Your task to perform on an android device: Go to CNN.com Image 0: 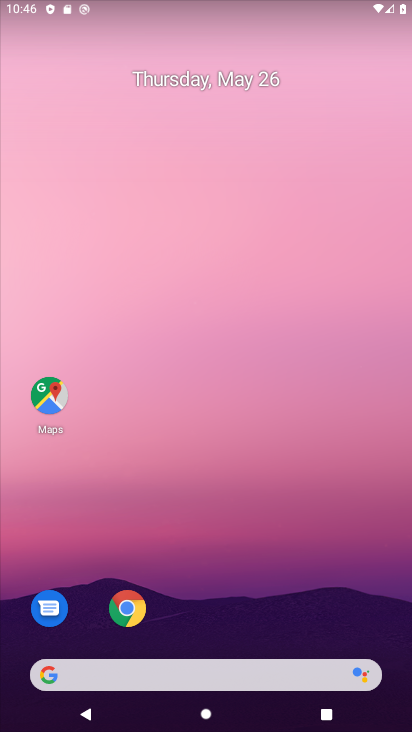
Step 0: drag from (309, 454) to (327, 86)
Your task to perform on an android device: Go to CNN.com Image 1: 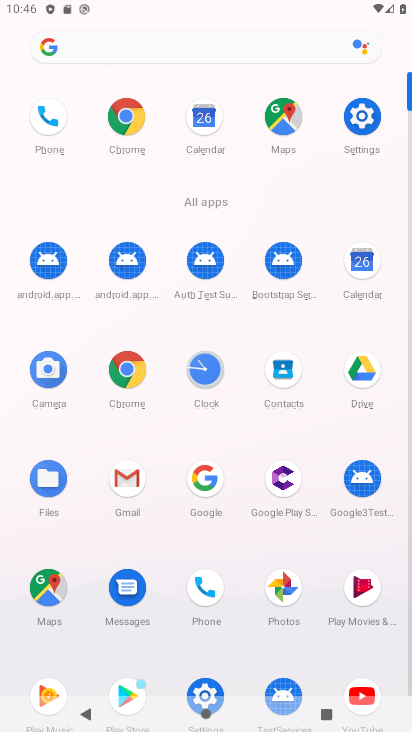
Step 1: click (130, 115)
Your task to perform on an android device: Go to CNN.com Image 2: 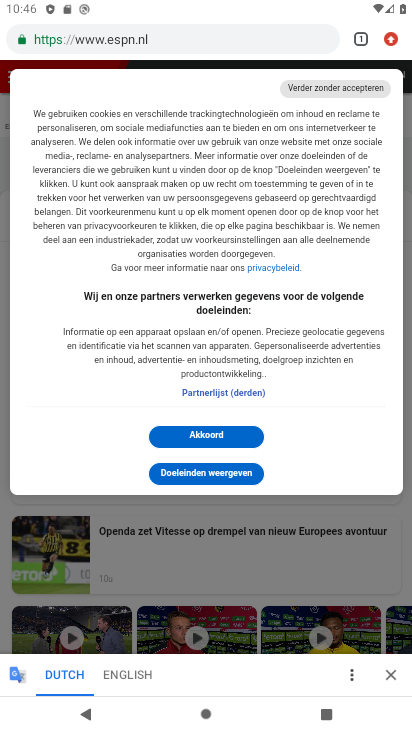
Step 2: click (201, 34)
Your task to perform on an android device: Go to CNN.com Image 3: 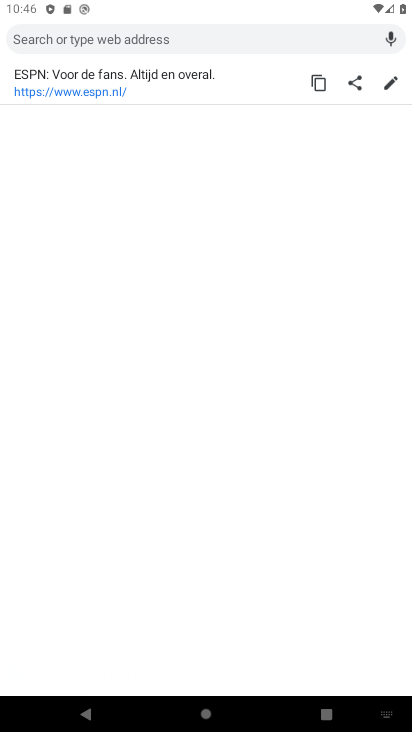
Step 3: type "cnn.com"
Your task to perform on an android device: Go to CNN.com Image 4: 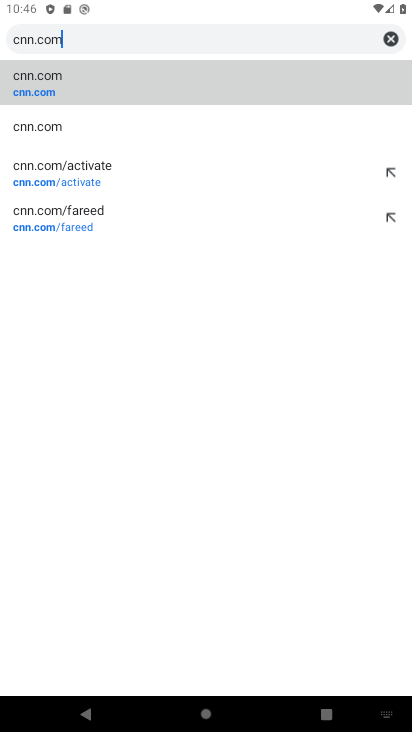
Step 4: click (22, 91)
Your task to perform on an android device: Go to CNN.com Image 5: 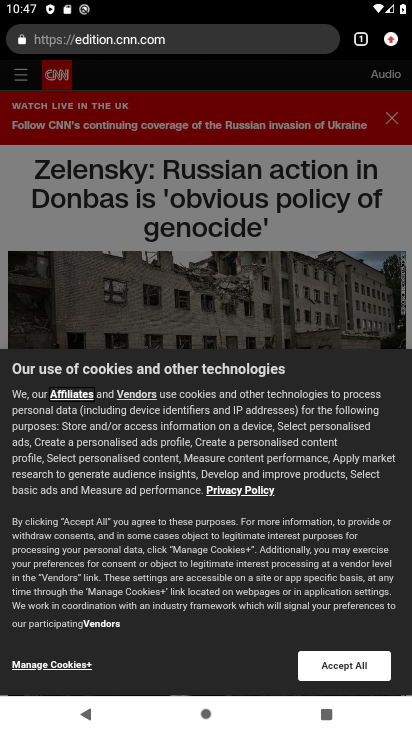
Step 5: task complete